Your task to perform on an android device: Open location settings Image 0: 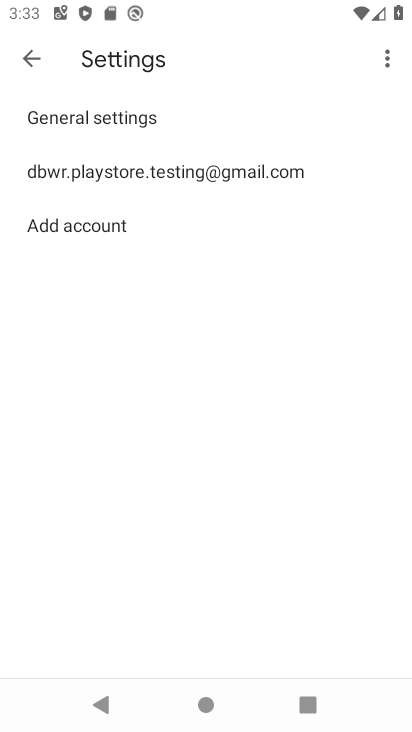
Step 0: press home button
Your task to perform on an android device: Open location settings Image 1: 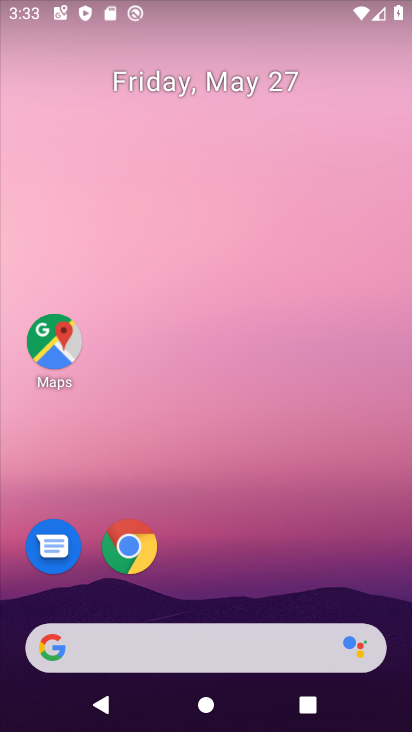
Step 1: drag from (391, 676) to (367, 122)
Your task to perform on an android device: Open location settings Image 2: 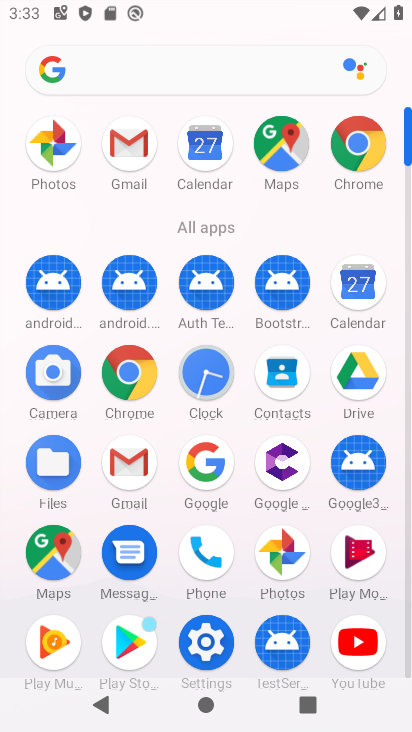
Step 2: click (200, 632)
Your task to perform on an android device: Open location settings Image 3: 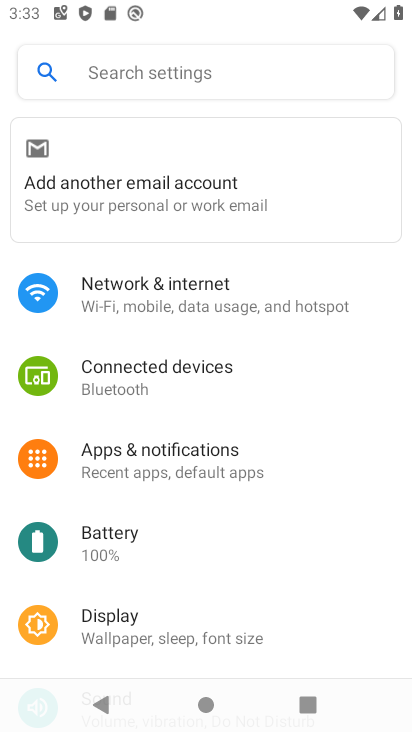
Step 3: drag from (317, 639) to (327, 125)
Your task to perform on an android device: Open location settings Image 4: 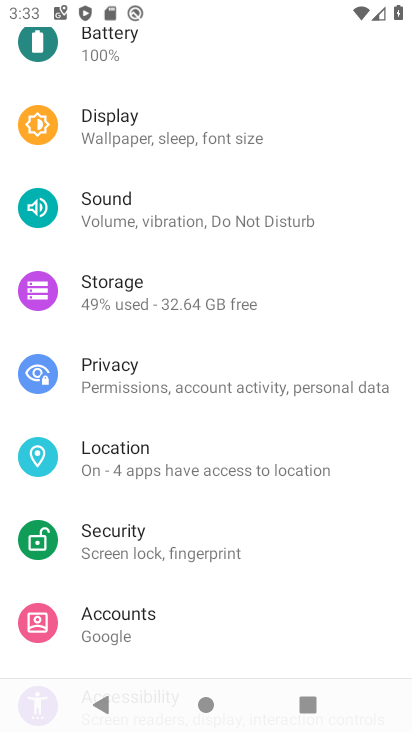
Step 4: drag from (247, 647) to (249, 344)
Your task to perform on an android device: Open location settings Image 5: 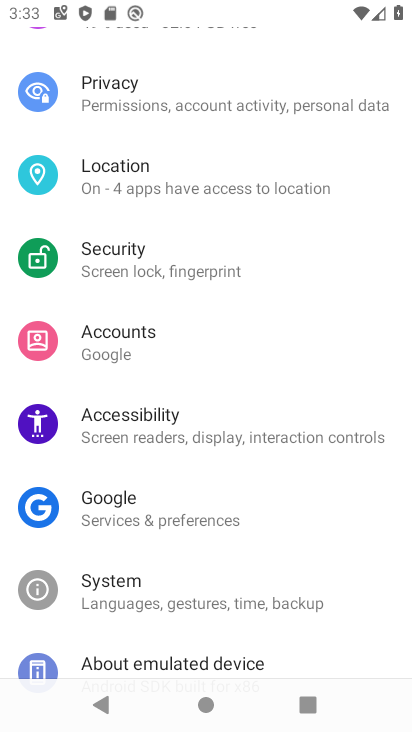
Step 5: click (105, 179)
Your task to perform on an android device: Open location settings Image 6: 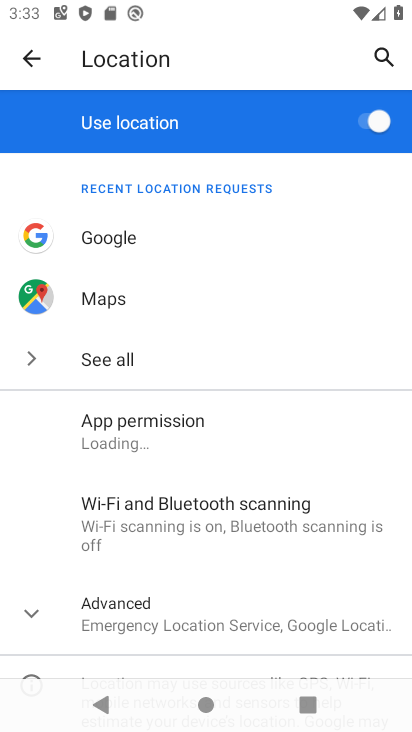
Step 6: click (33, 606)
Your task to perform on an android device: Open location settings Image 7: 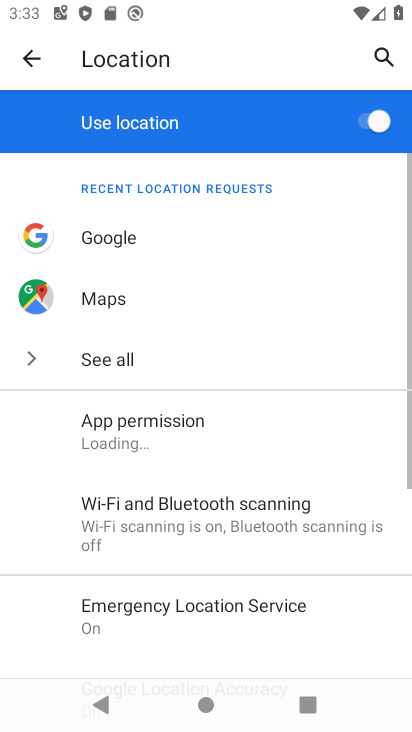
Step 7: task complete